Your task to perform on an android device: check storage Image 0: 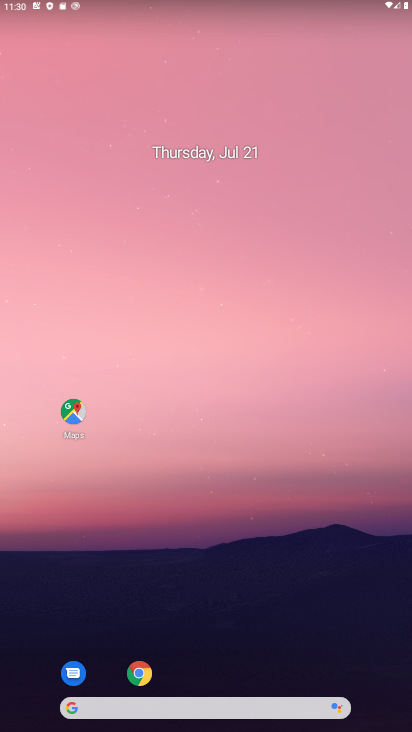
Step 0: drag from (224, 665) to (240, 231)
Your task to perform on an android device: check storage Image 1: 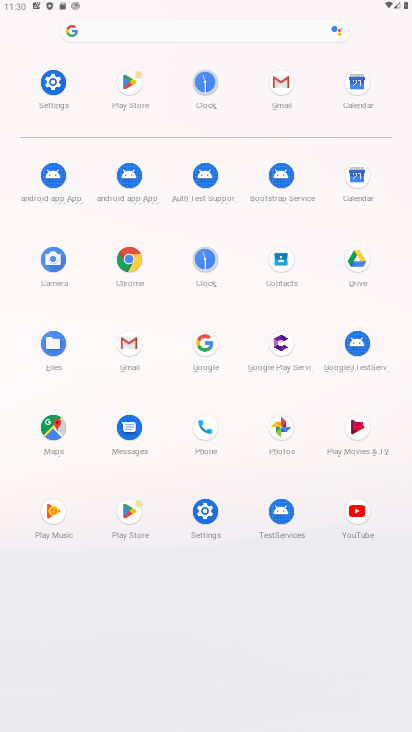
Step 1: click (42, 95)
Your task to perform on an android device: check storage Image 2: 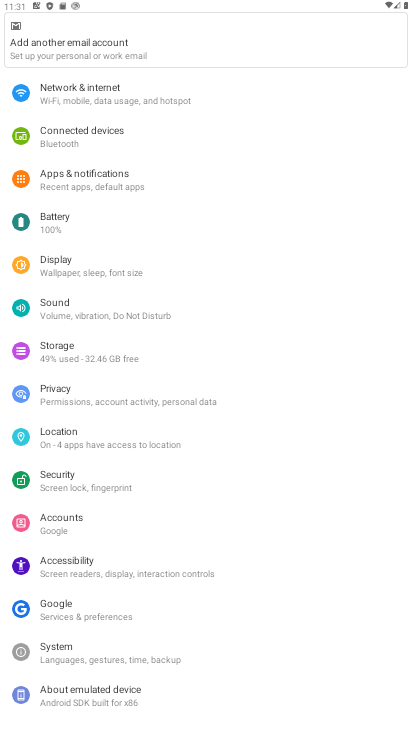
Step 2: drag from (158, 485) to (207, 257)
Your task to perform on an android device: check storage Image 3: 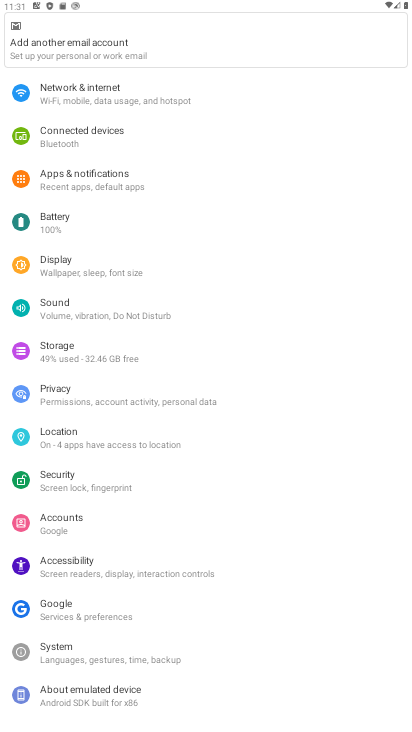
Step 3: click (72, 352)
Your task to perform on an android device: check storage Image 4: 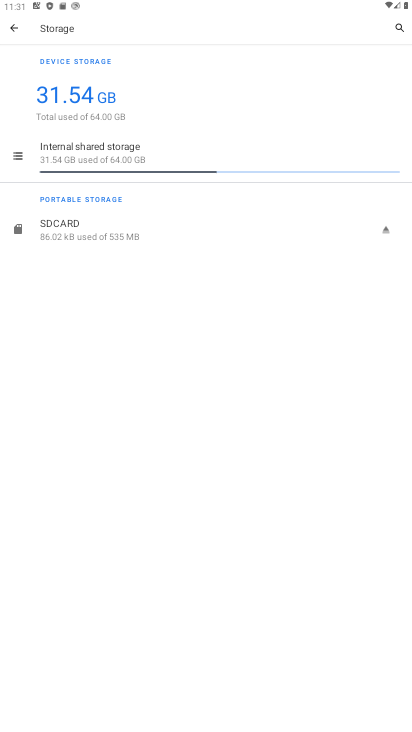
Step 4: click (165, 164)
Your task to perform on an android device: check storage Image 5: 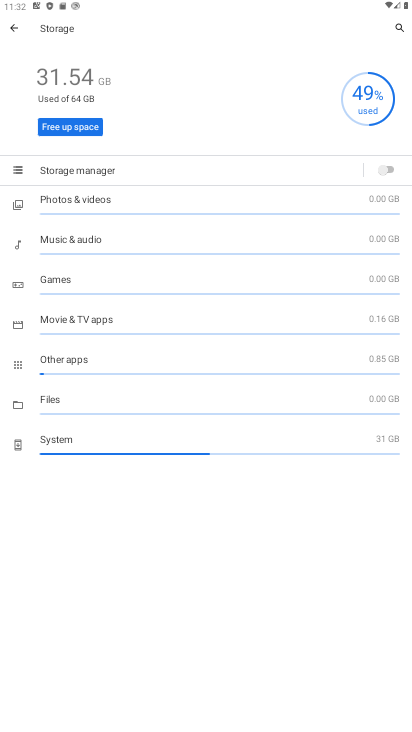
Step 5: task complete